Your task to perform on an android device: remove spam from my inbox in the gmail app Image 0: 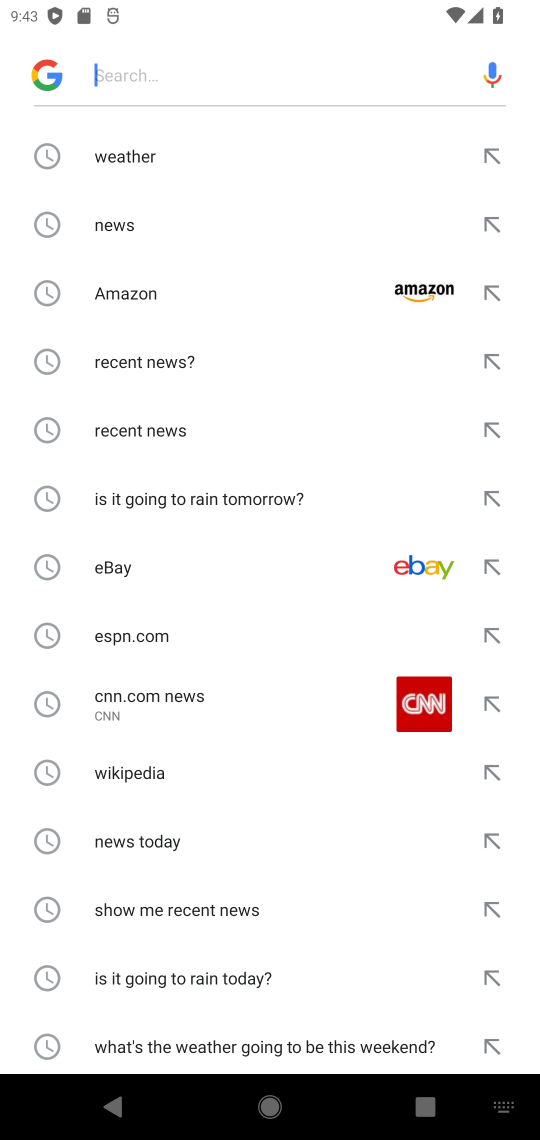
Step 0: press home button
Your task to perform on an android device: remove spam from my inbox in the gmail app Image 1: 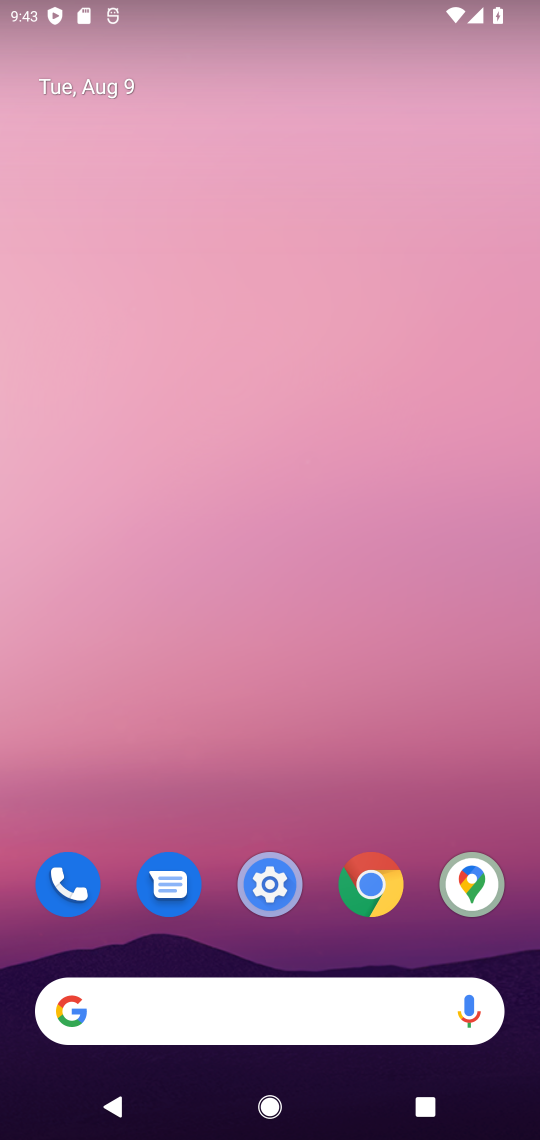
Step 1: drag from (249, 1005) to (254, 38)
Your task to perform on an android device: remove spam from my inbox in the gmail app Image 2: 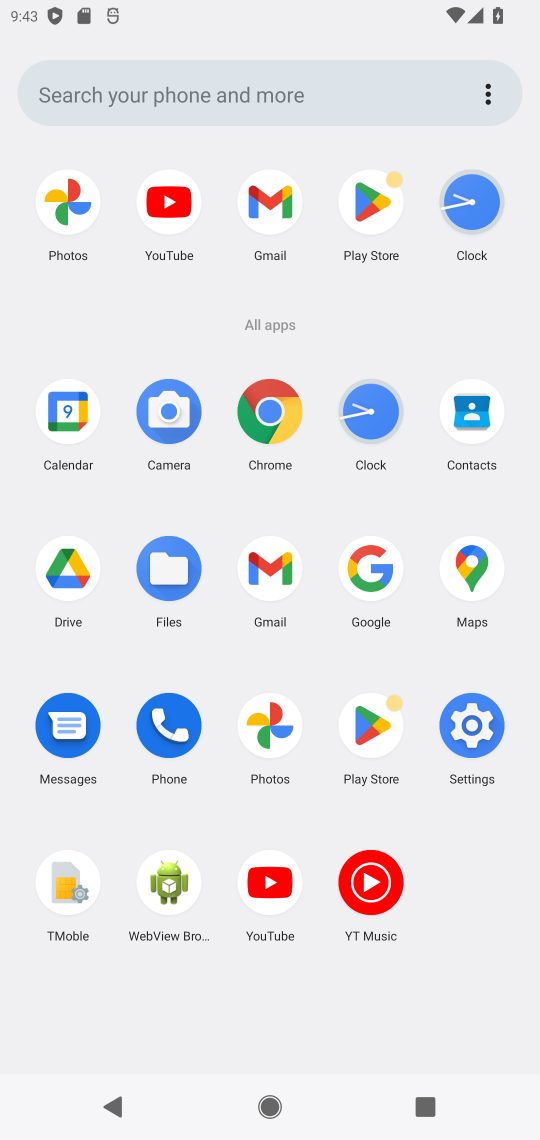
Step 2: click (271, 199)
Your task to perform on an android device: remove spam from my inbox in the gmail app Image 3: 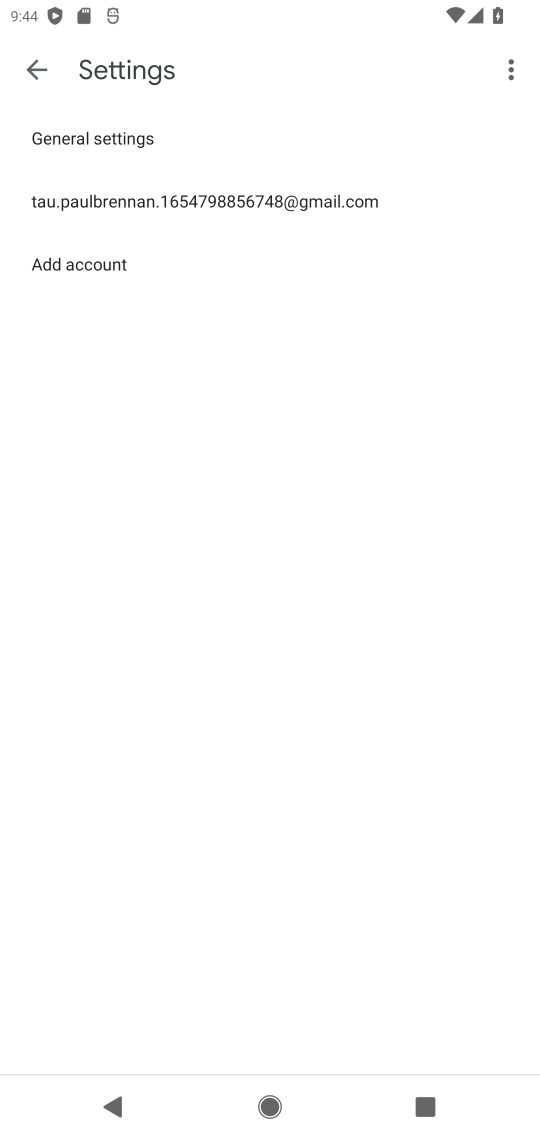
Step 3: press back button
Your task to perform on an android device: remove spam from my inbox in the gmail app Image 4: 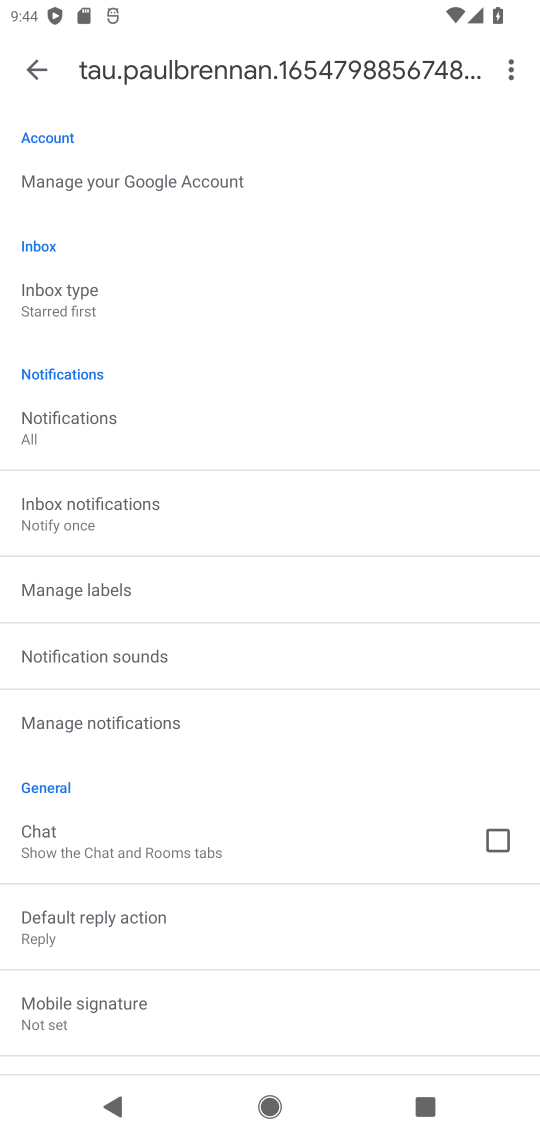
Step 4: press back button
Your task to perform on an android device: remove spam from my inbox in the gmail app Image 5: 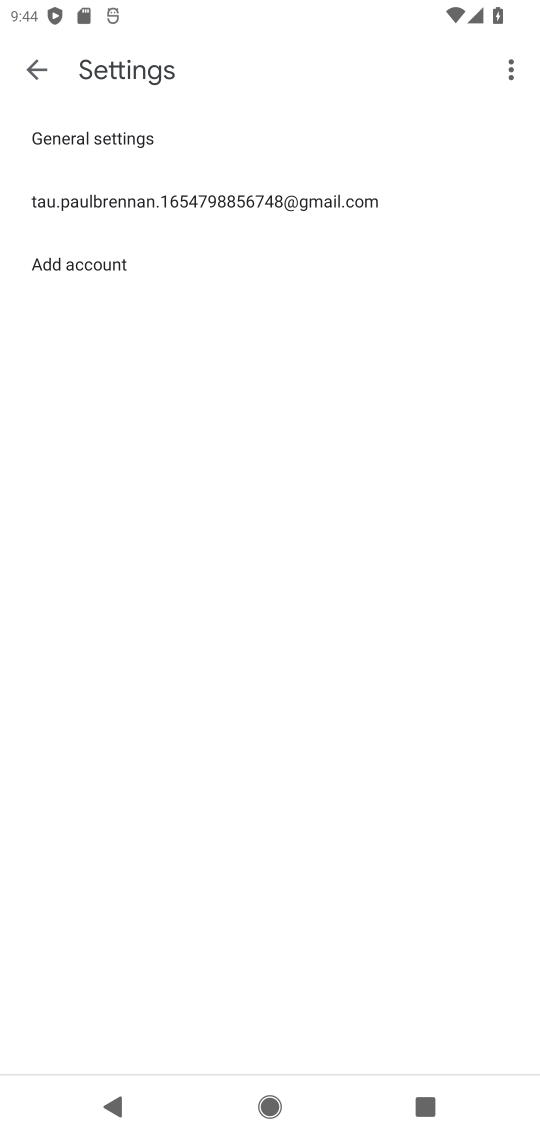
Step 5: press back button
Your task to perform on an android device: remove spam from my inbox in the gmail app Image 6: 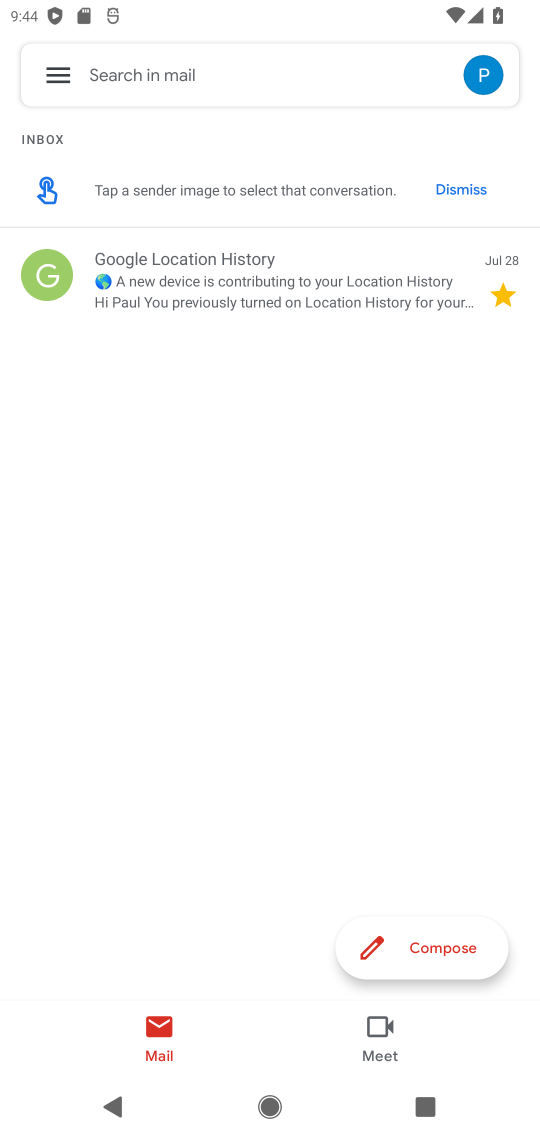
Step 6: click (65, 73)
Your task to perform on an android device: remove spam from my inbox in the gmail app Image 7: 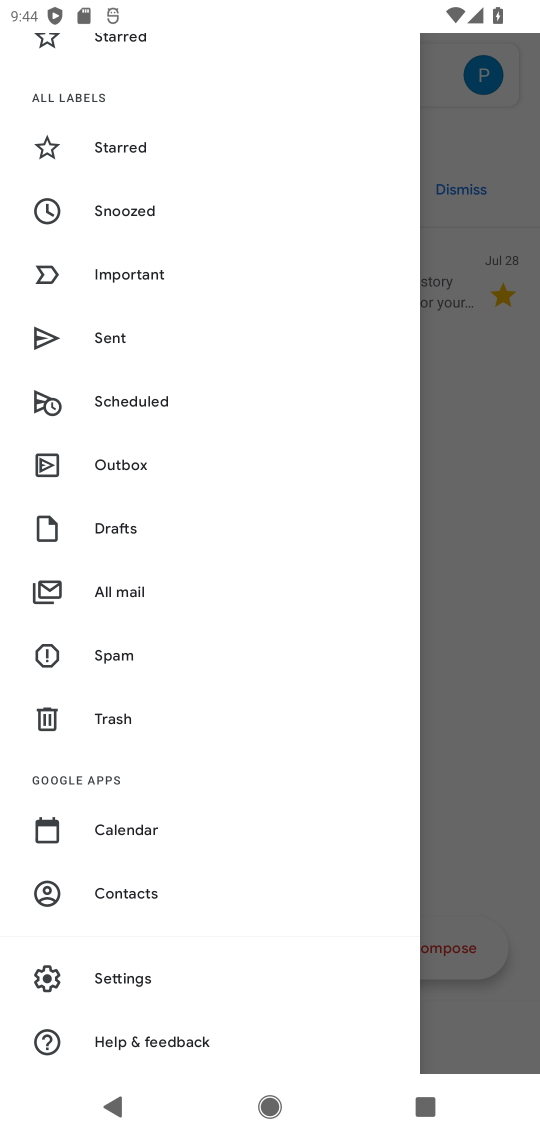
Step 7: click (101, 650)
Your task to perform on an android device: remove spam from my inbox in the gmail app Image 8: 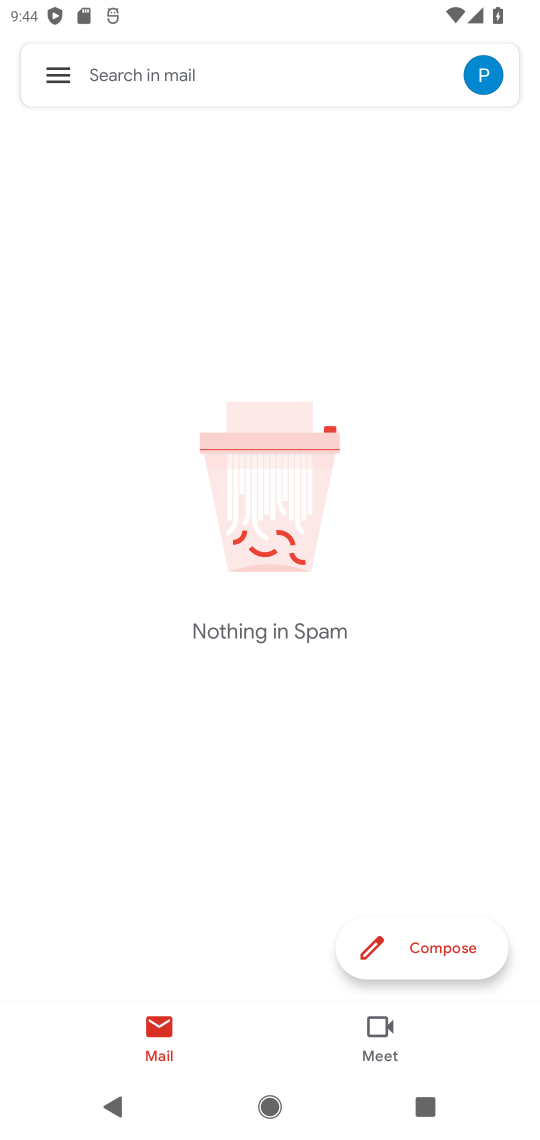
Step 8: task complete